Your task to perform on an android device: open app "DoorDash - Food Delivery" (install if not already installed) and go to login screen Image 0: 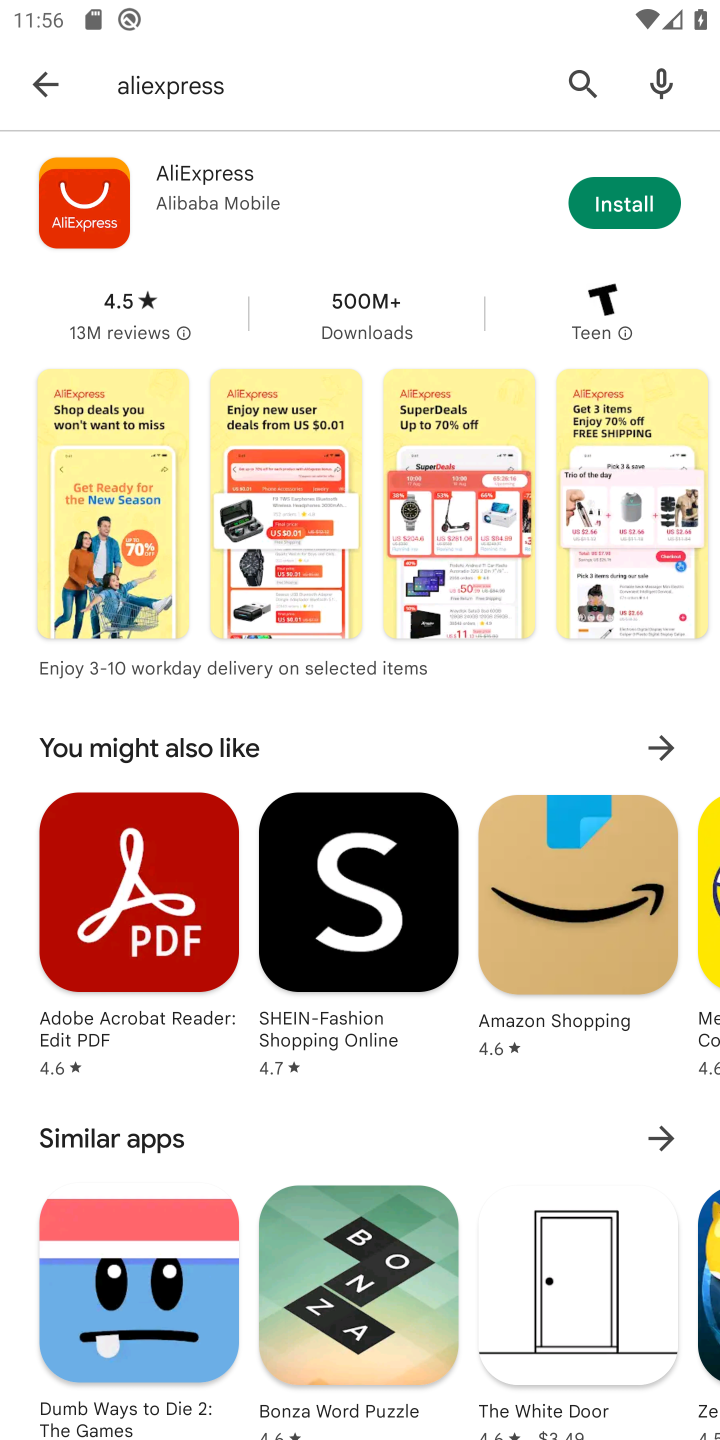
Step 0: click (579, 83)
Your task to perform on an android device: open app "DoorDash - Food Delivery" (install if not already installed) and go to login screen Image 1: 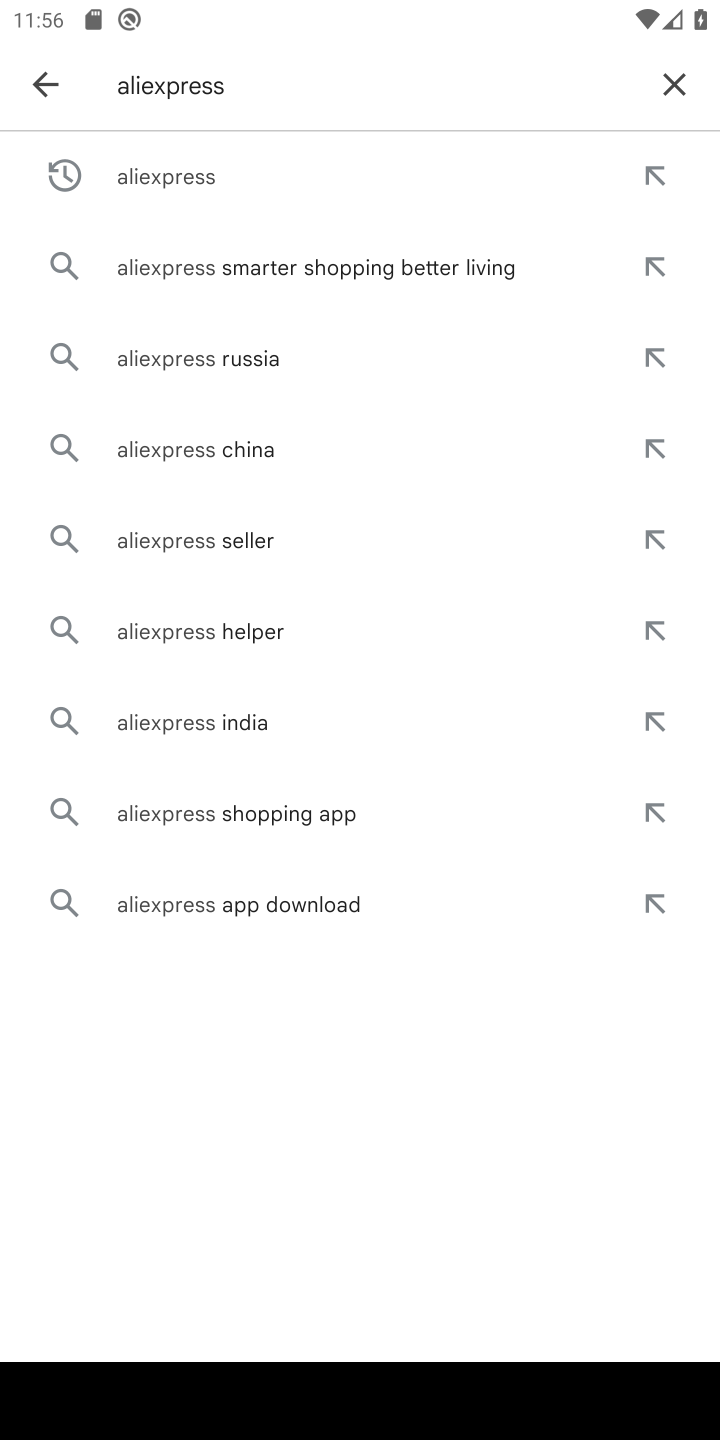
Step 1: click (683, 82)
Your task to perform on an android device: open app "DoorDash - Food Delivery" (install if not already installed) and go to login screen Image 2: 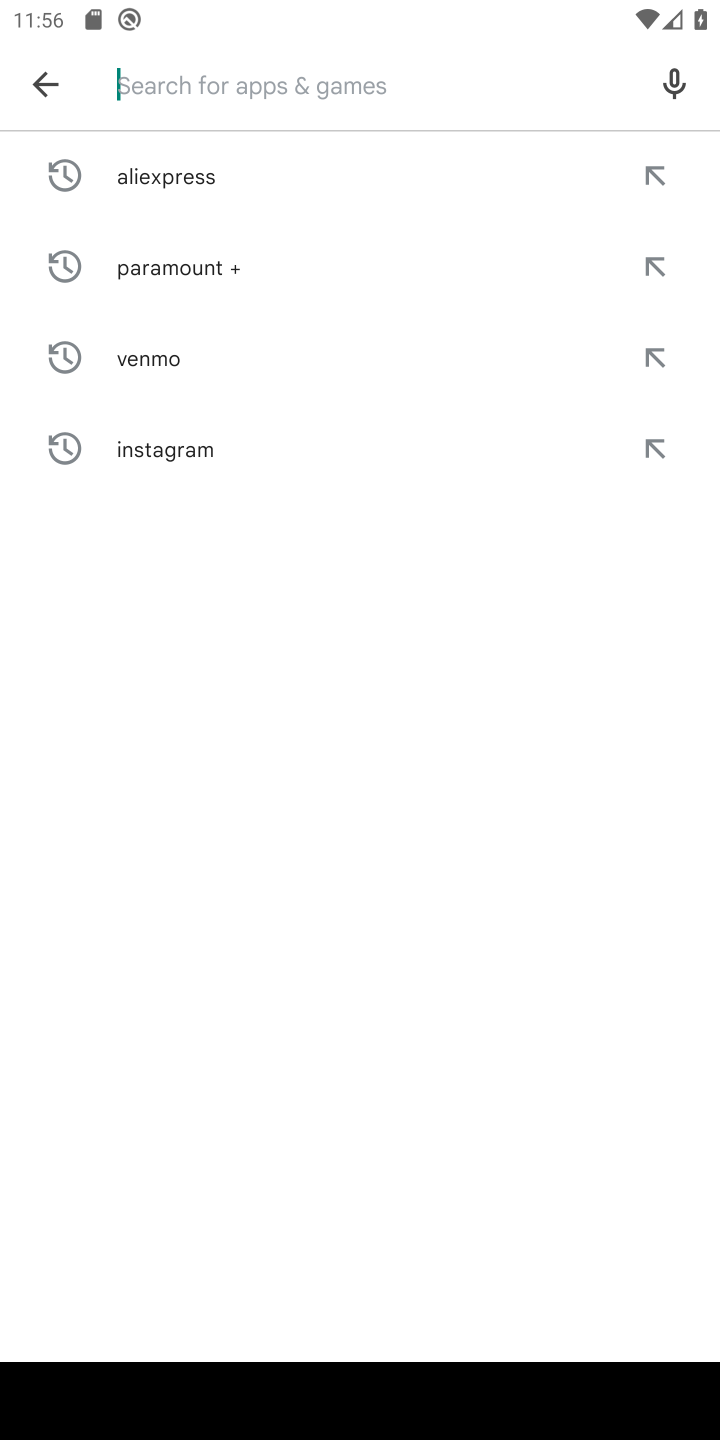
Step 2: type "doordash"
Your task to perform on an android device: open app "DoorDash - Food Delivery" (install if not already installed) and go to login screen Image 3: 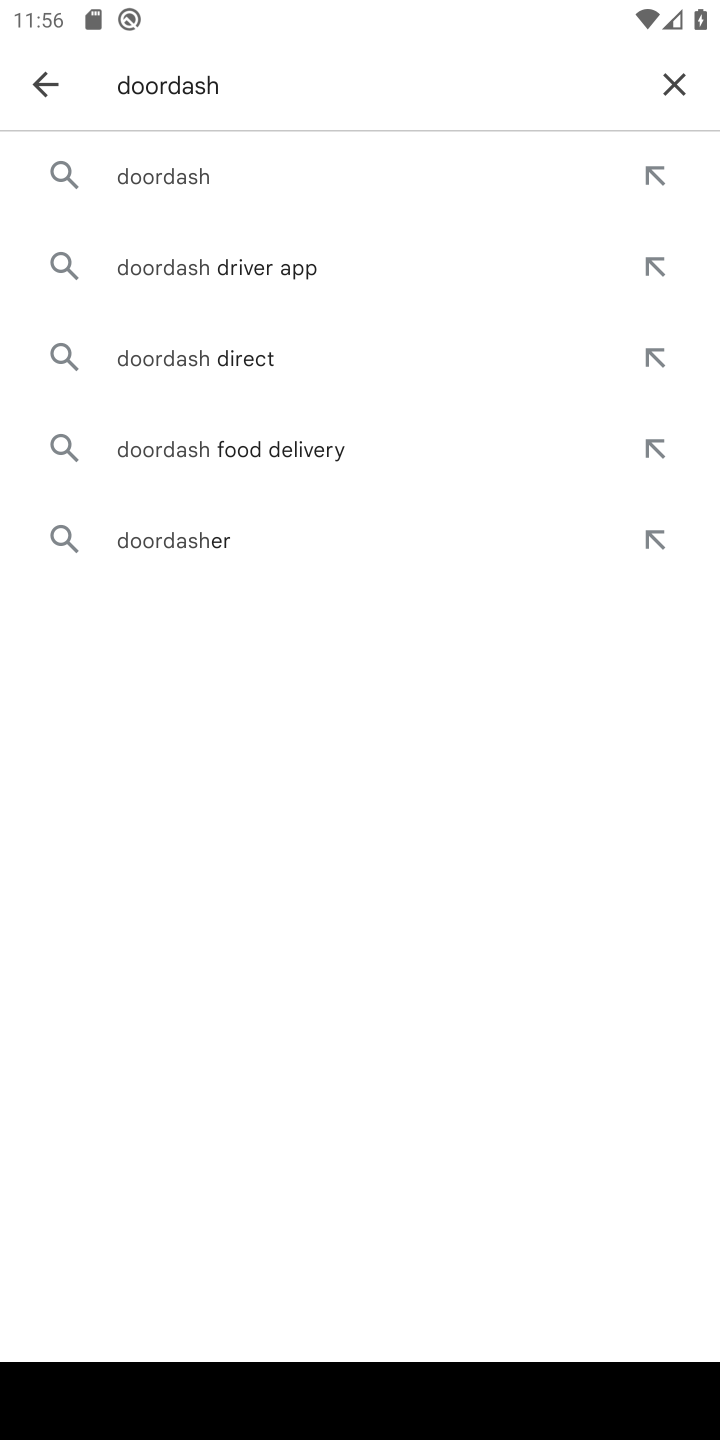
Step 3: click (227, 173)
Your task to perform on an android device: open app "DoorDash - Food Delivery" (install if not already installed) and go to login screen Image 4: 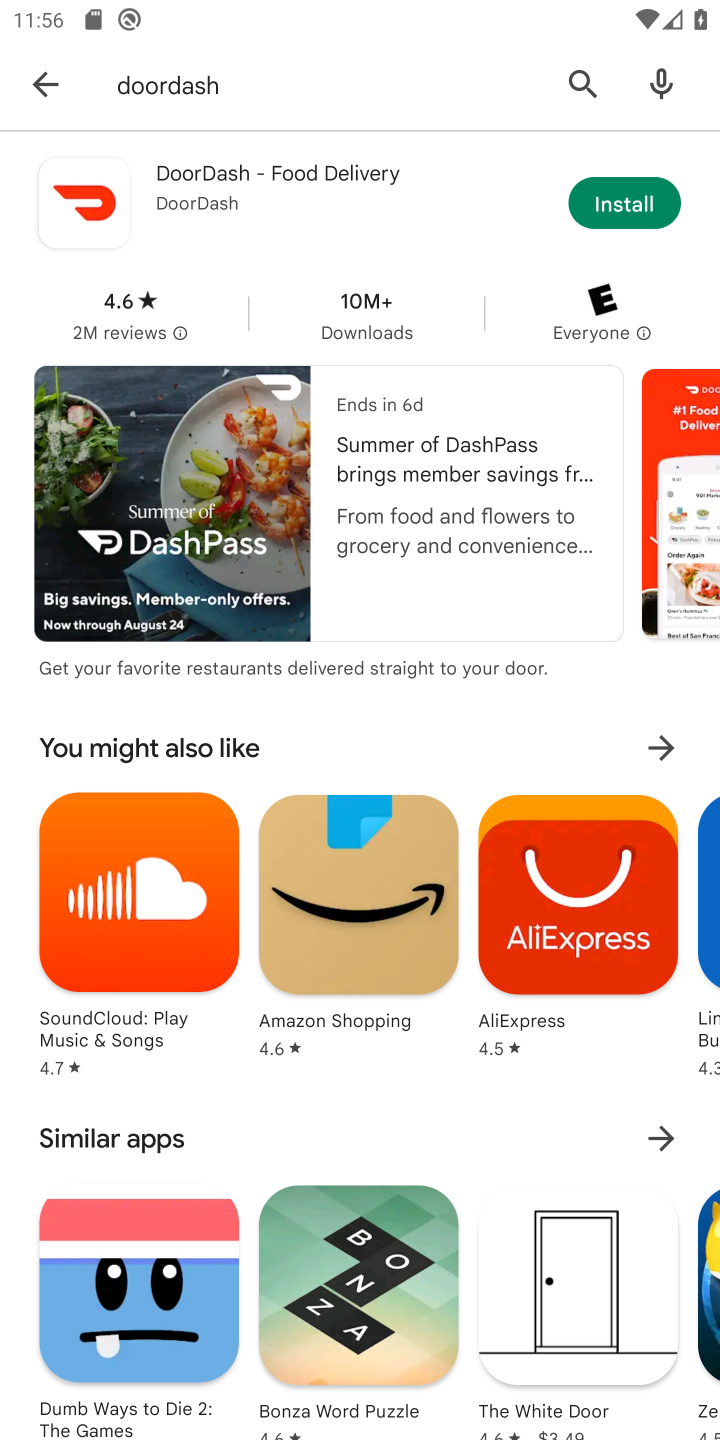
Step 4: click (615, 216)
Your task to perform on an android device: open app "DoorDash - Food Delivery" (install if not already installed) and go to login screen Image 5: 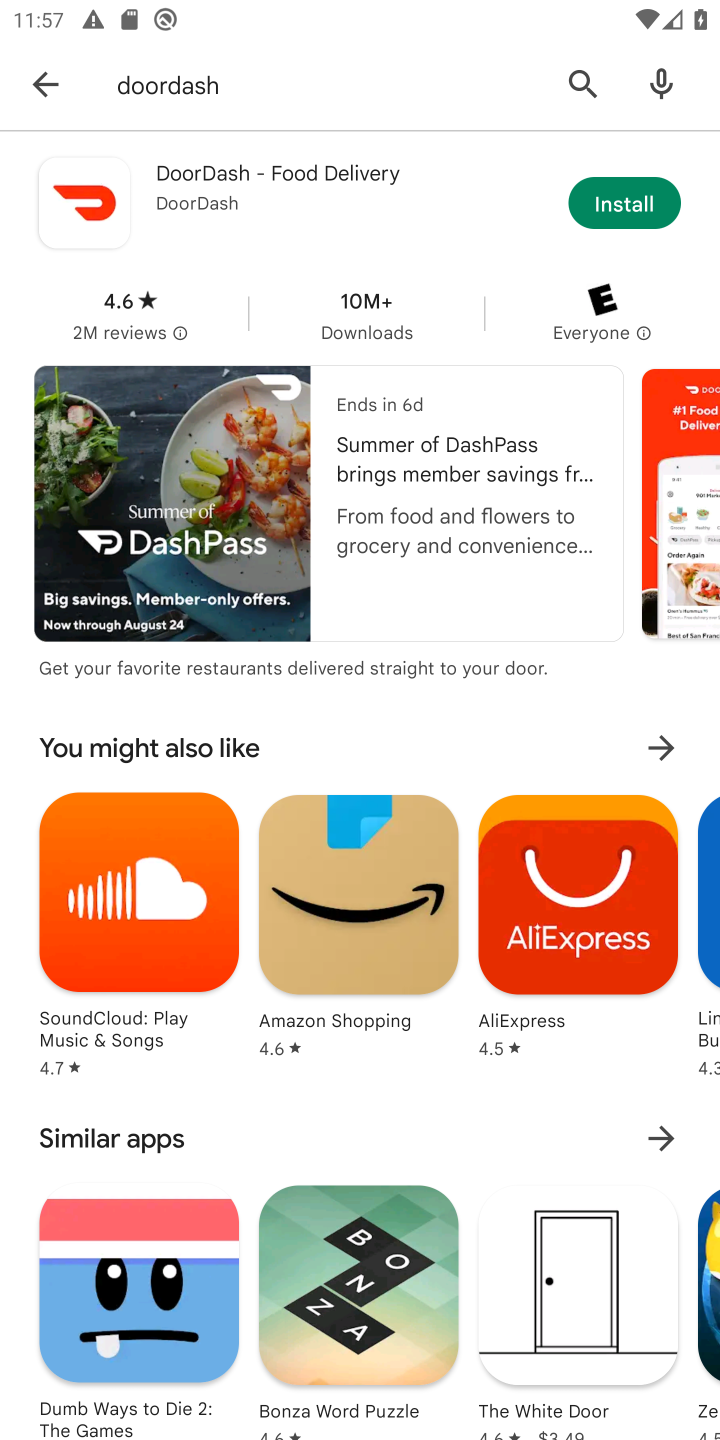
Step 5: click (583, 202)
Your task to perform on an android device: open app "DoorDash - Food Delivery" (install if not already installed) and go to login screen Image 6: 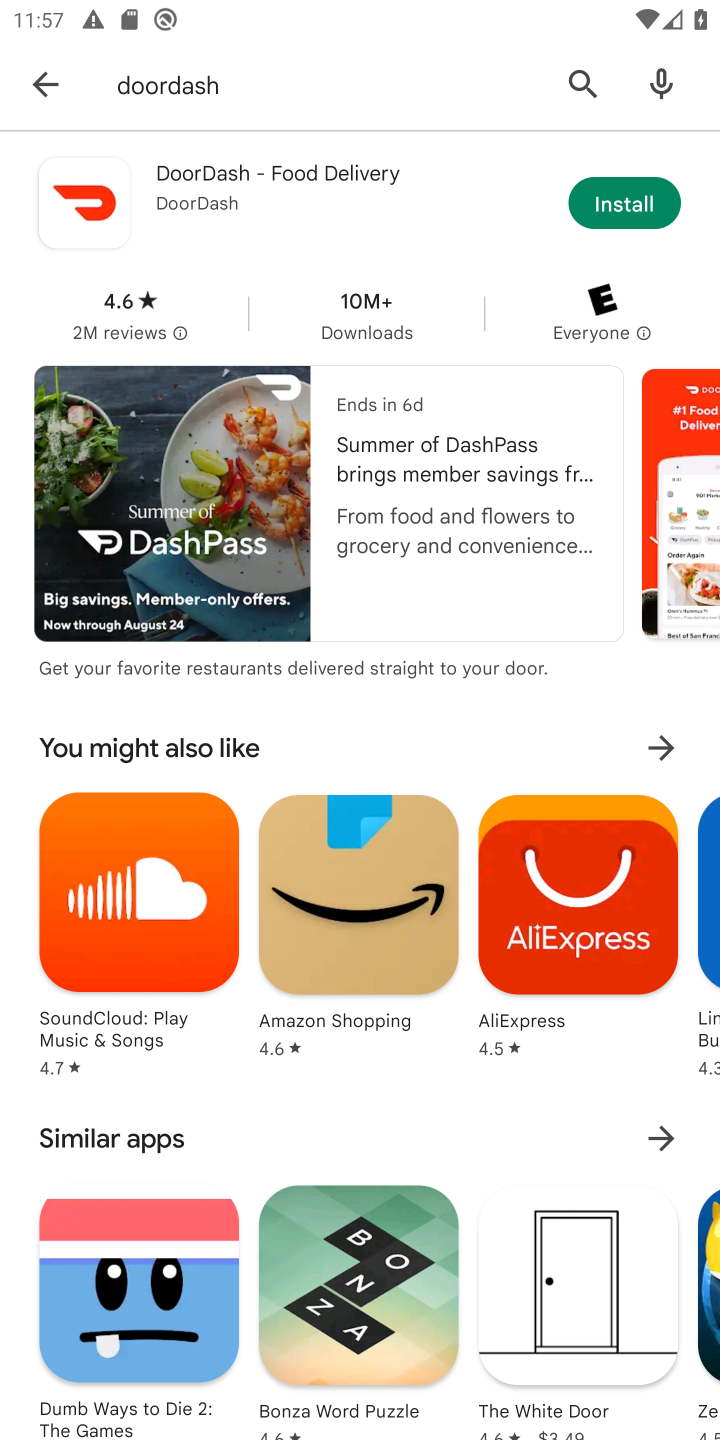
Step 6: task complete